Your task to perform on an android device: Go to Android settings Image 0: 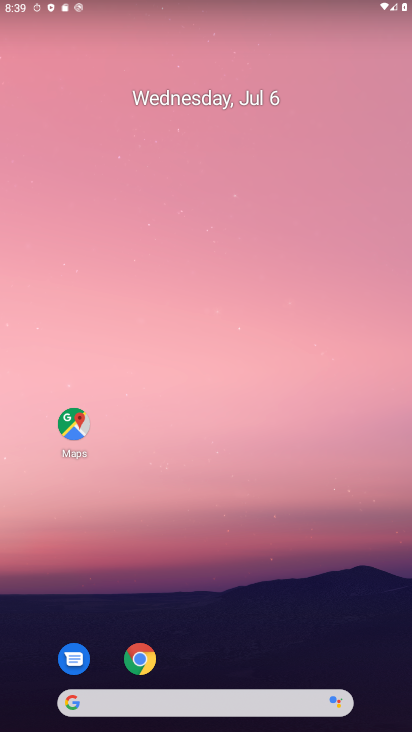
Step 0: drag from (346, 630) to (339, 239)
Your task to perform on an android device: Go to Android settings Image 1: 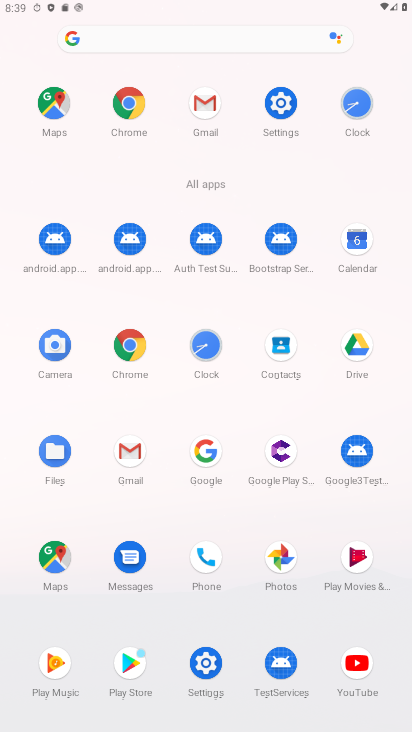
Step 1: click (206, 666)
Your task to perform on an android device: Go to Android settings Image 2: 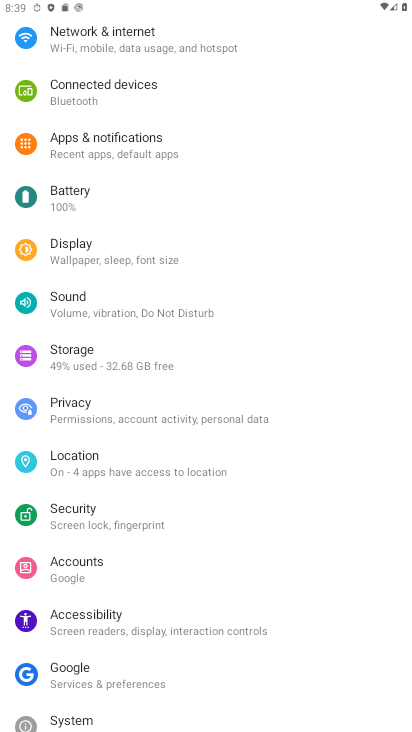
Step 2: drag from (303, 212) to (308, 328)
Your task to perform on an android device: Go to Android settings Image 3: 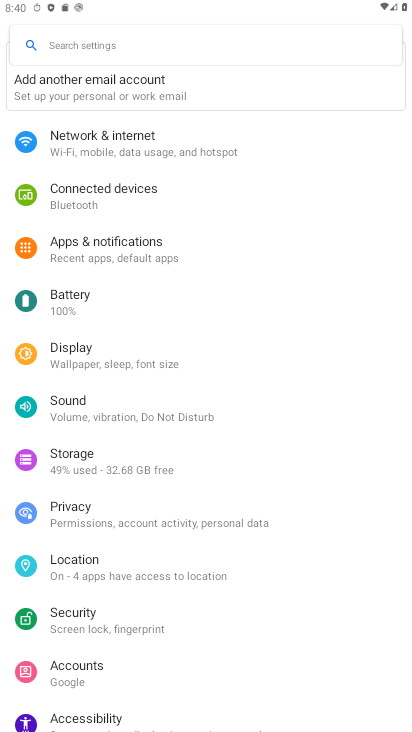
Step 3: drag from (347, 378) to (352, 303)
Your task to perform on an android device: Go to Android settings Image 4: 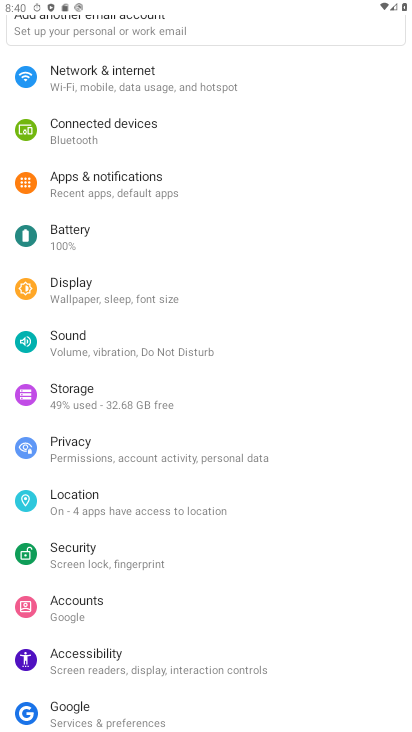
Step 4: drag from (342, 412) to (354, 301)
Your task to perform on an android device: Go to Android settings Image 5: 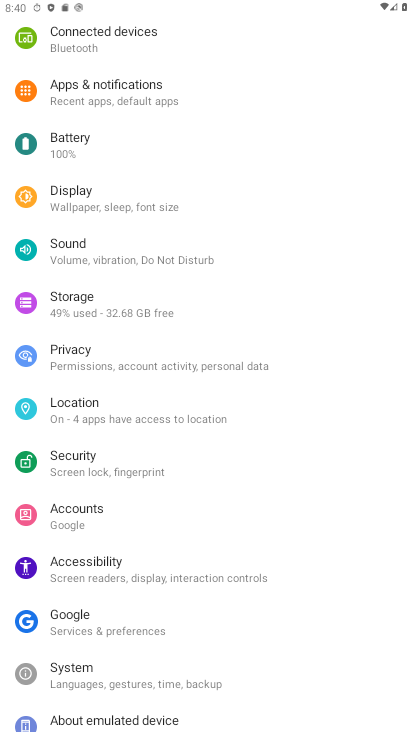
Step 5: drag from (363, 451) to (357, 335)
Your task to perform on an android device: Go to Android settings Image 6: 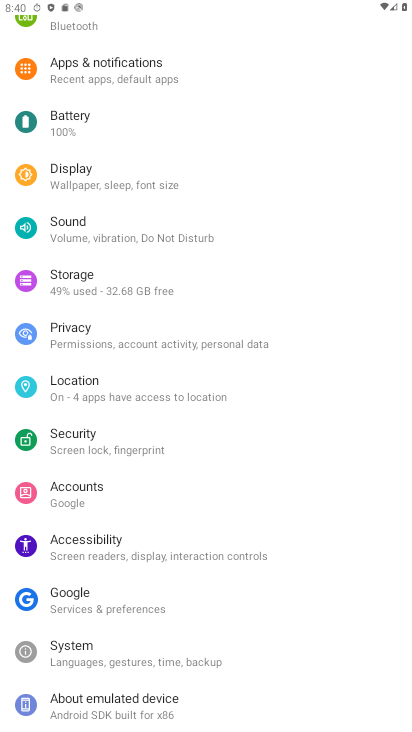
Step 6: click (257, 671)
Your task to perform on an android device: Go to Android settings Image 7: 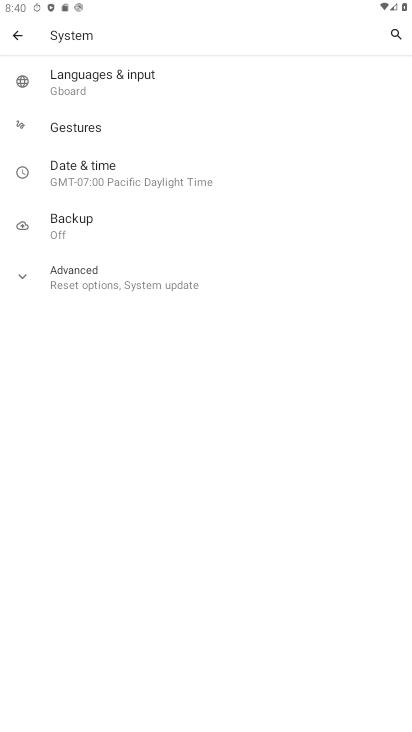
Step 7: click (164, 278)
Your task to perform on an android device: Go to Android settings Image 8: 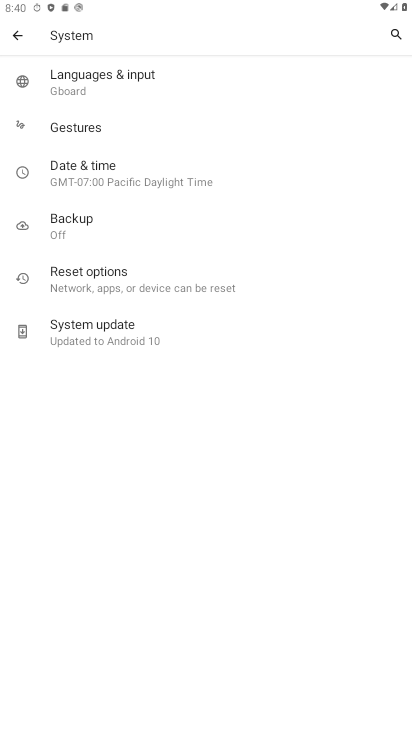
Step 8: task complete